Your task to perform on an android device: snooze an email in the gmail app Image 0: 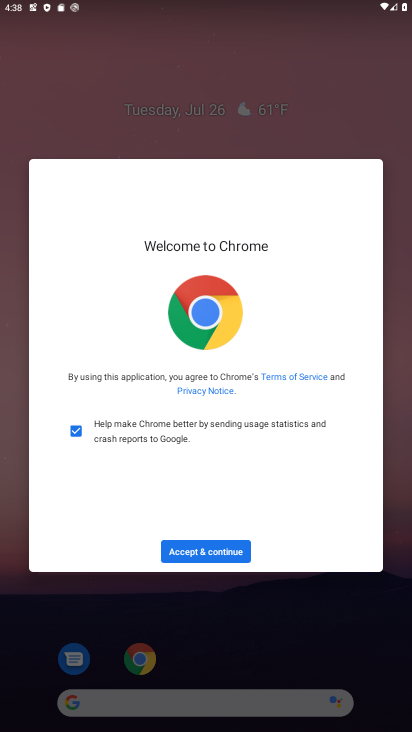
Step 0: click (227, 551)
Your task to perform on an android device: snooze an email in the gmail app Image 1: 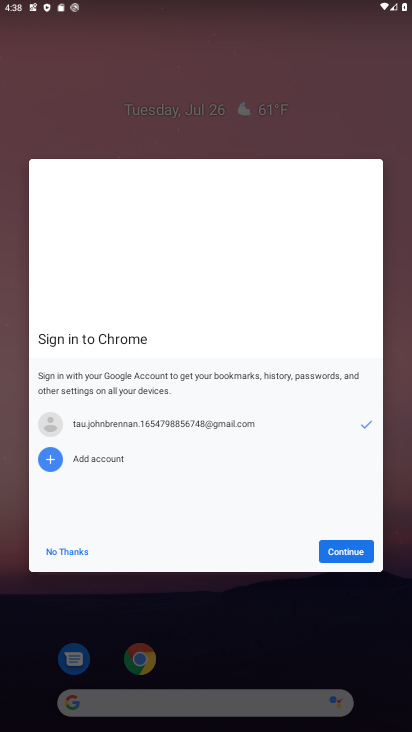
Step 1: click (353, 553)
Your task to perform on an android device: snooze an email in the gmail app Image 2: 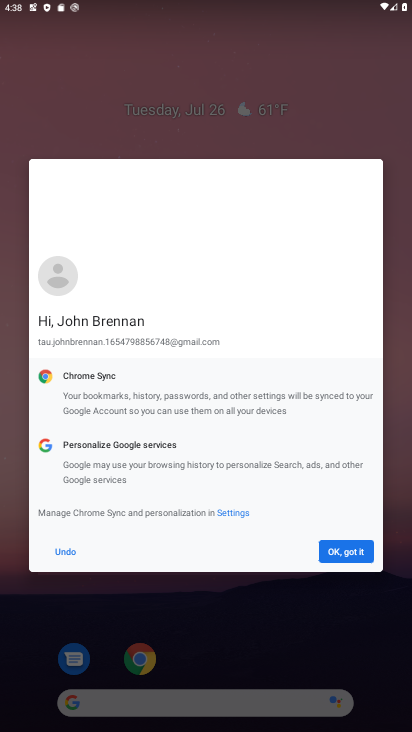
Step 2: click (353, 553)
Your task to perform on an android device: snooze an email in the gmail app Image 3: 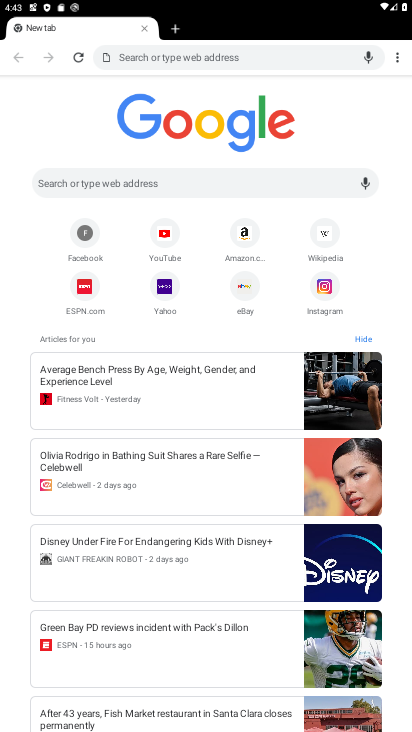
Step 3: press home button
Your task to perform on an android device: snooze an email in the gmail app Image 4: 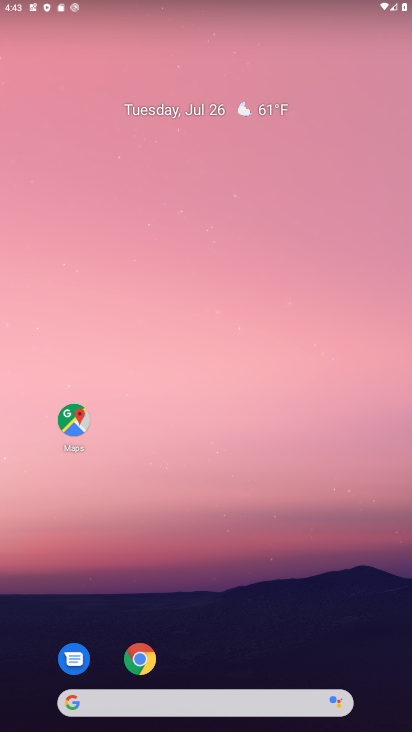
Step 4: drag from (203, 566) to (225, 108)
Your task to perform on an android device: snooze an email in the gmail app Image 5: 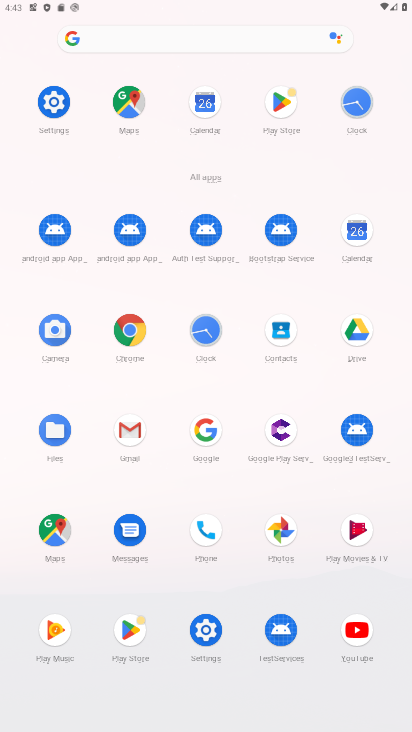
Step 5: click (129, 429)
Your task to perform on an android device: snooze an email in the gmail app Image 6: 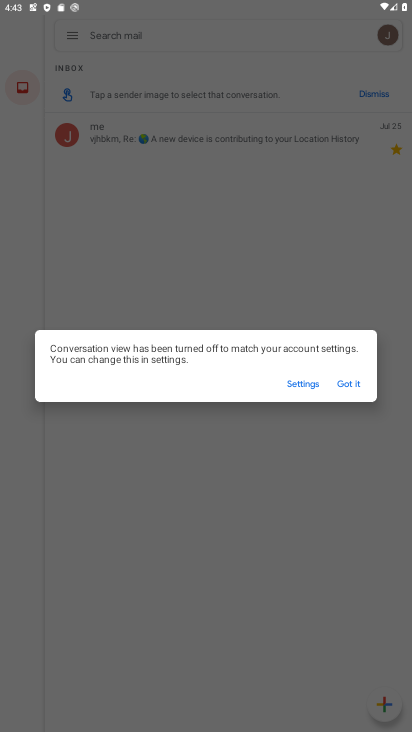
Step 6: click (351, 383)
Your task to perform on an android device: snooze an email in the gmail app Image 7: 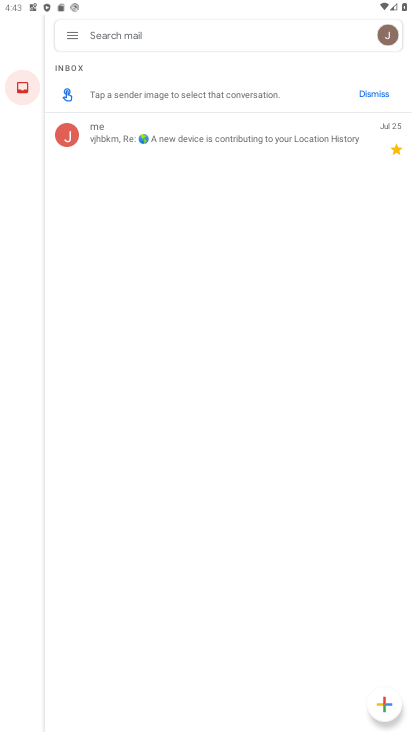
Step 7: click (74, 39)
Your task to perform on an android device: snooze an email in the gmail app Image 8: 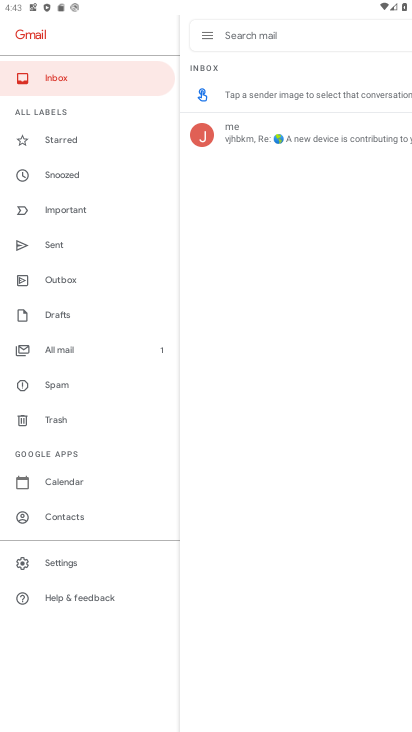
Step 8: click (74, 173)
Your task to perform on an android device: snooze an email in the gmail app Image 9: 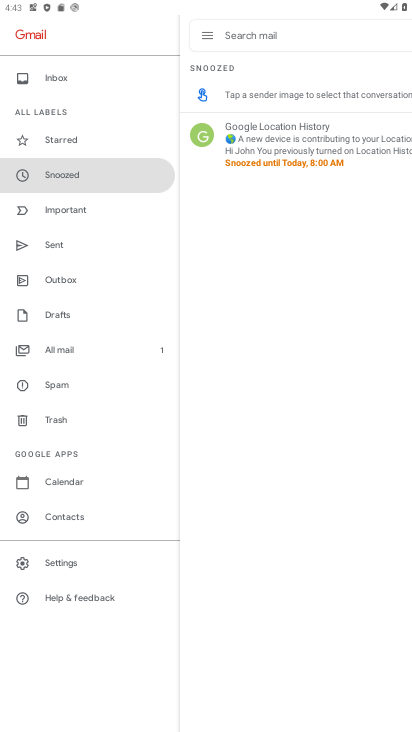
Step 9: task complete